Your task to perform on an android device: change the clock style Image 0: 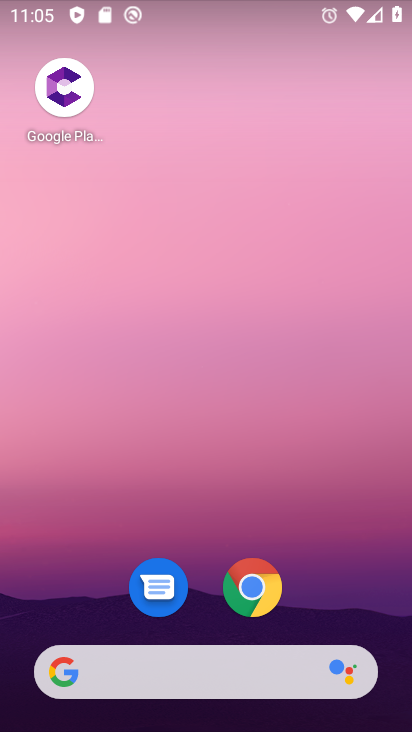
Step 0: drag from (335, 605) to (318, 1)
Your task to perform on an android device: change the clock style Image 1: 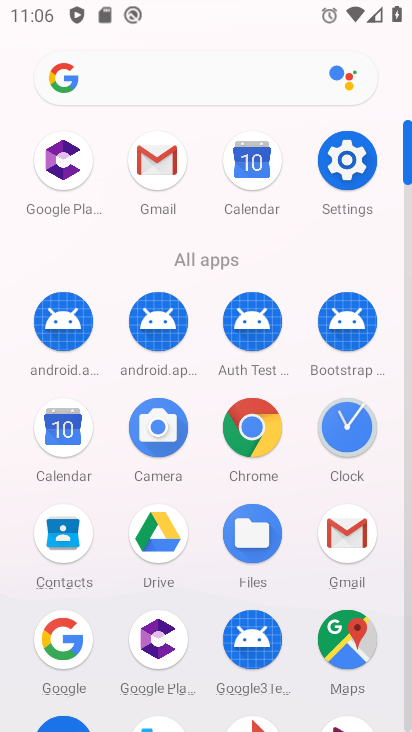
Step 1: click (333, 427)
Your task to perform on an android device: change the clock style Image 2: 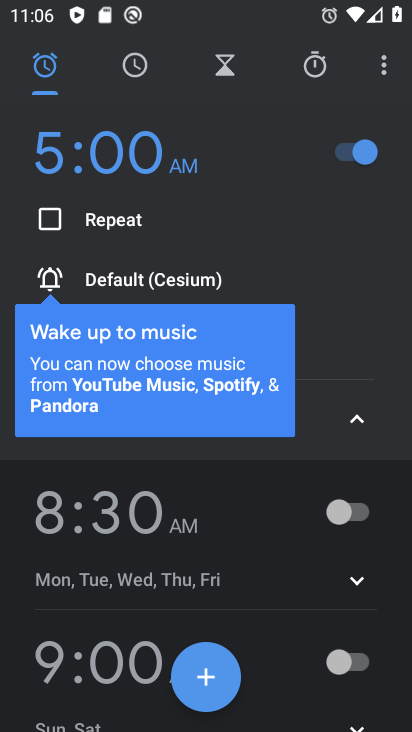
Step 2: click (382, 69)
Your task to perform on an android device: change the clock style Image 3: 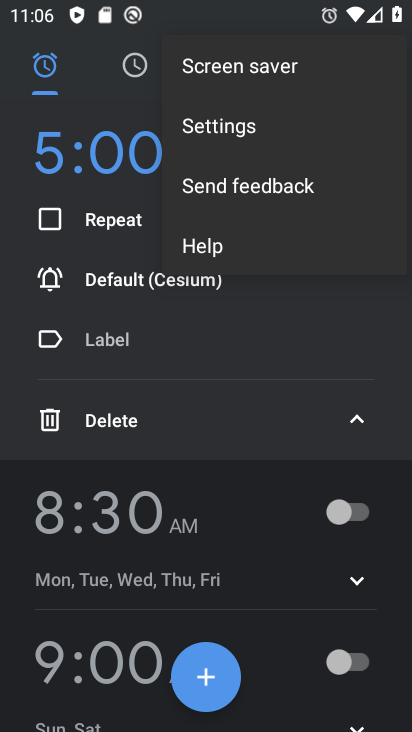
Step 3: click (256, 135)
Your task to perform on an android device: change the clock style Image 4: 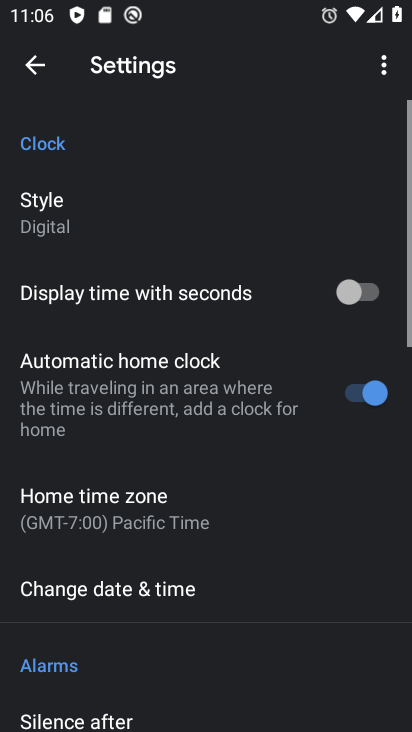
Step 4: click (38, 231)
Your task to perform on an android device: change the clock style Image 5: 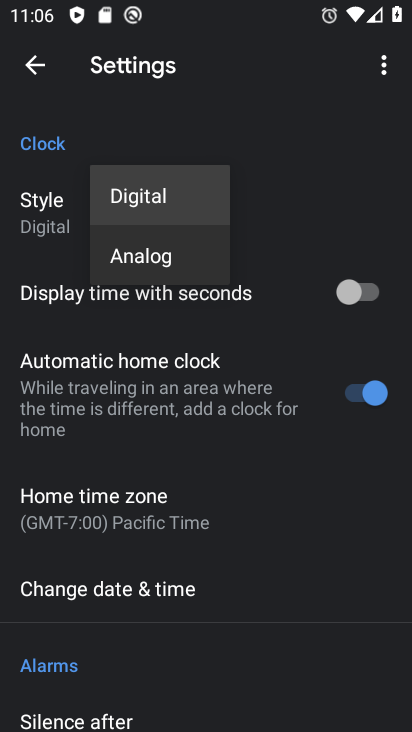
Step 5: click (133, 256)
Your task to perform on an android device: change the clock style Image 6: 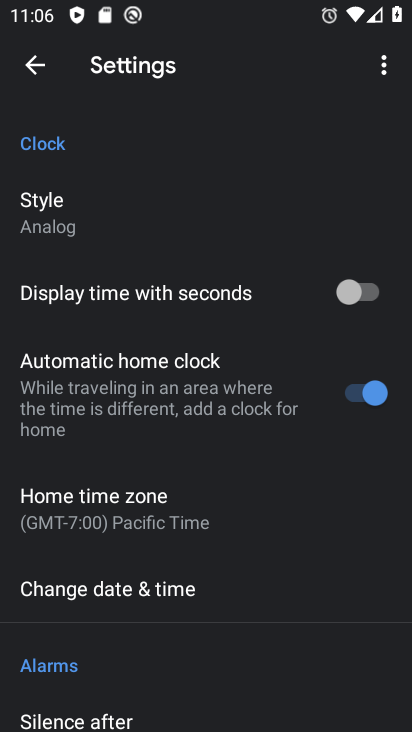
Step 6: task complete